Your task to perform on an android device: What's the weather going to be this weekend? Image 0: 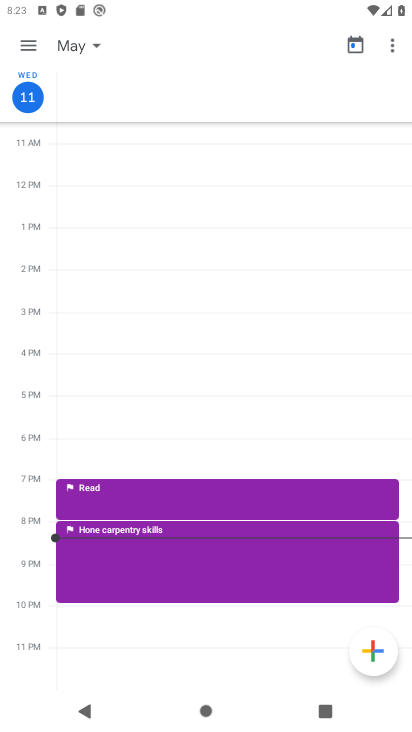
Step 0: press home button
Your task to perform on an android device: What's the weather going to be this weekend? Image 1: 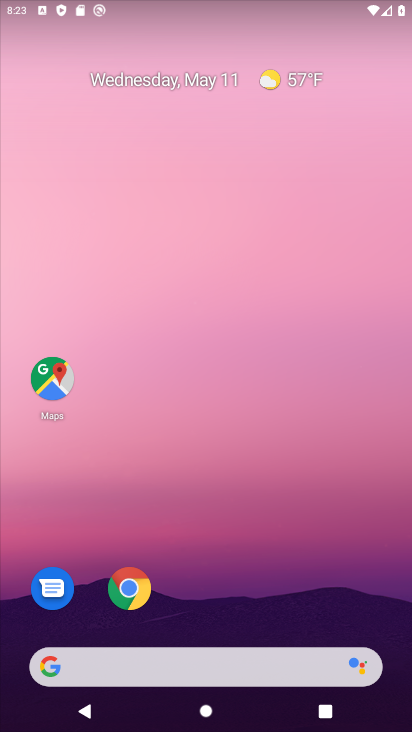
Step 1: click (240, 671)
Your task to perform on an android device: What's the weather going to be this weekend? Image 2: 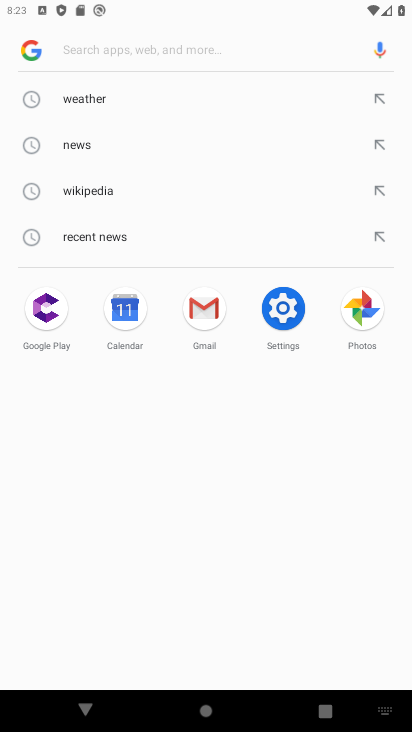
Step 2: type "What's the weather going to be this weekend?"
Your task to perform on an android device: What's the weather going to be this weekend? Image 3: 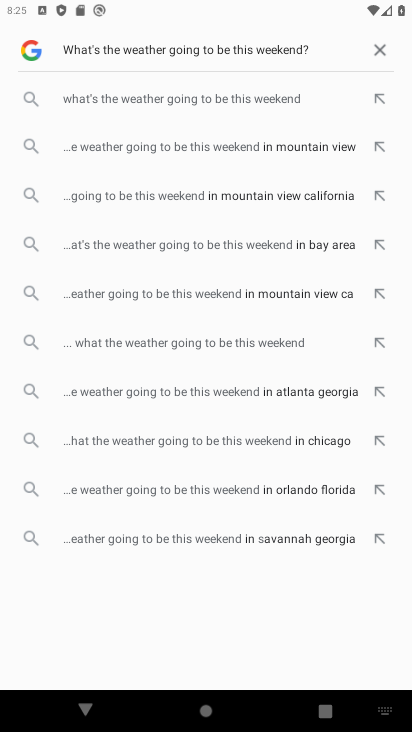
Step 3: click (295, 97)
Your task to perform on an android device: What's the weather going to be this weekend? Image 4: 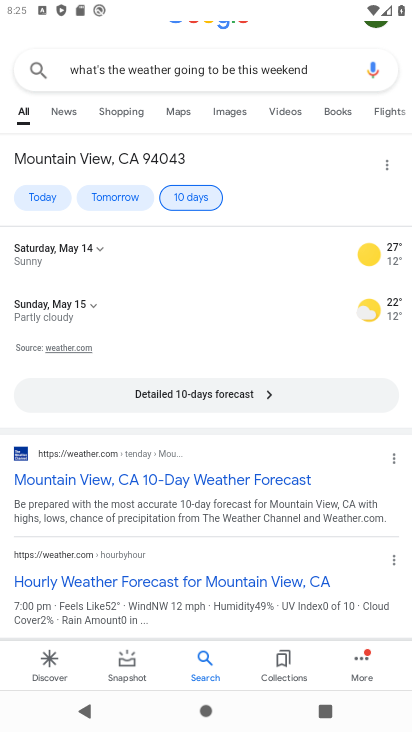
Step 4: task complete